Your task to perform on an android device: Open Yahoo.com Image 0: 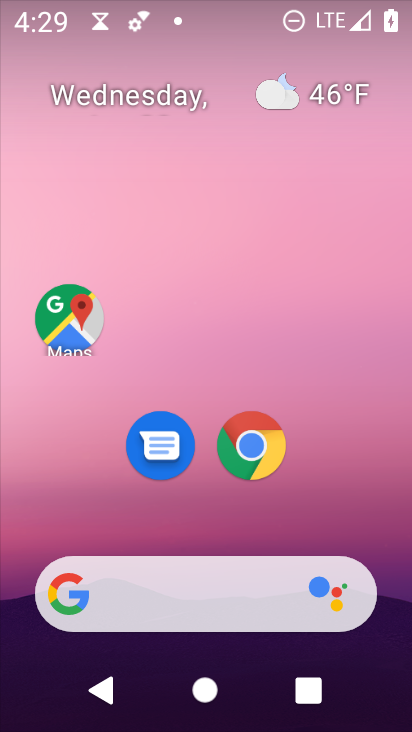
Step 0: click (254, 444)
Your task to perform on an android device: Open Yahoo.com Image 1: 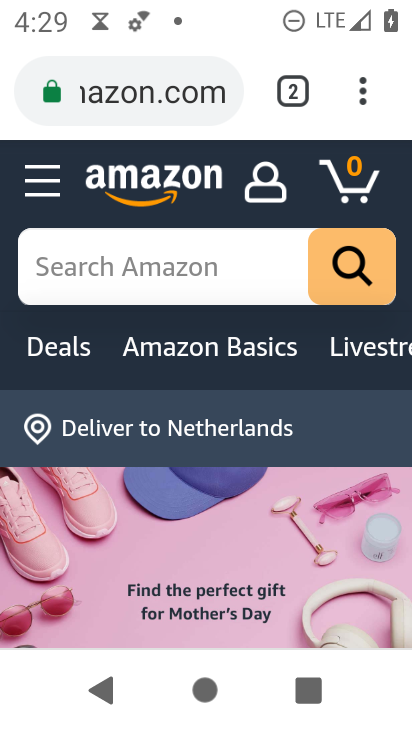
Step 1: click (223, 99)
Your task to perform on an android device: Open Yahoo.com Image 2: 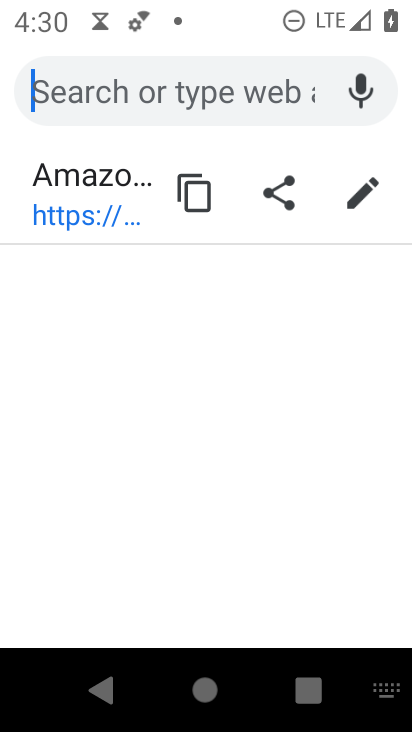
Step 2: type "Yahoo.com"
Your task to perform on an android device: Open Yahoo.com Image 3: 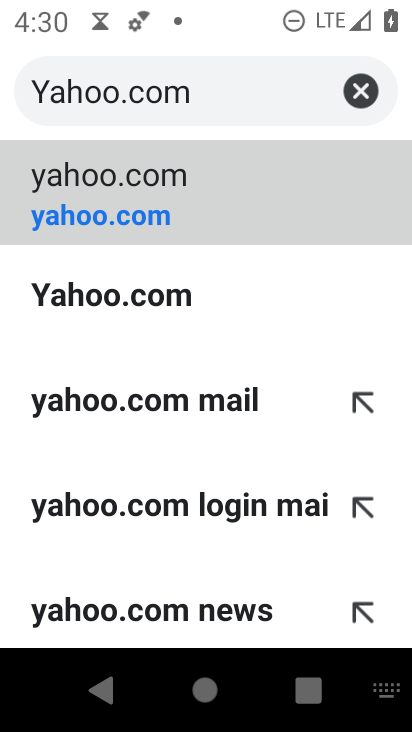
Step 3: click (178, 206)
Your task to perform on an android device: Open Yahoo.com Image 4: 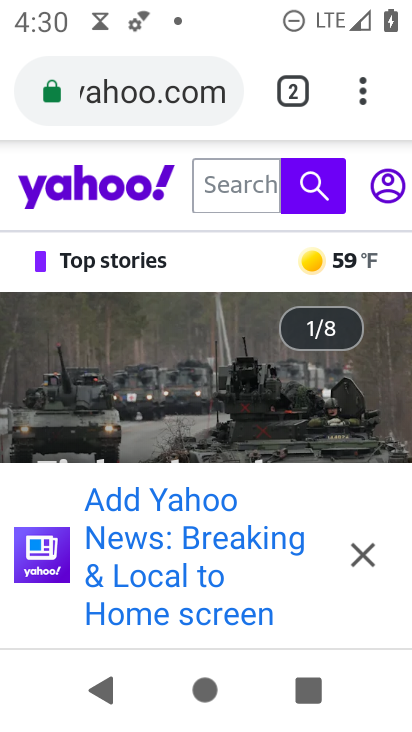
Step 4: task complete